Your task to perform on an android device: Open Yahoo.com Image 0: 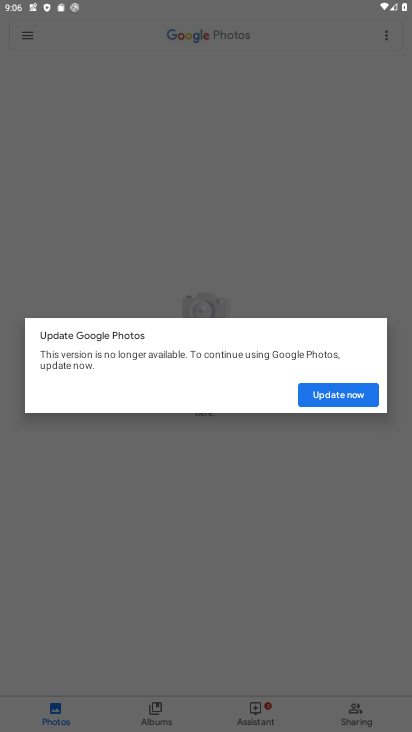
Step 0: press home button
Your task to perform on an android device: Open Yahoo.com Image 1: 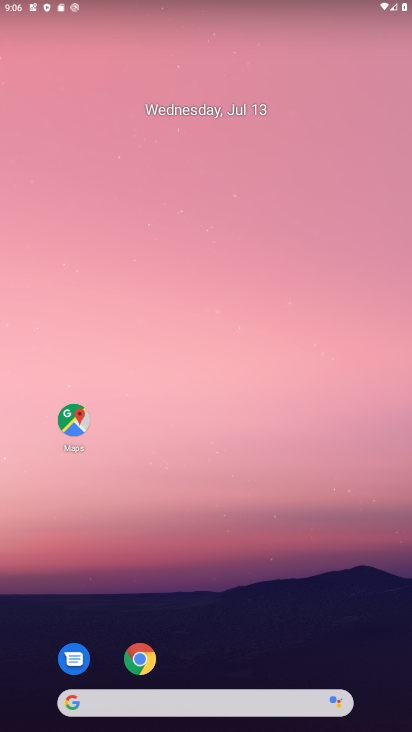
Step 1: click (139, 668)
Your task to perform on an android device: Open Yahoo.com Image 2: 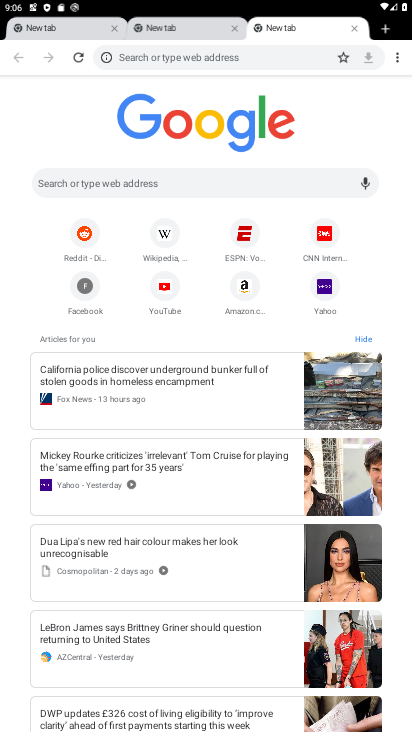
Step 2: click (321, 298)
Your task to perform on an android device: Open Yahoo.com Image 3: 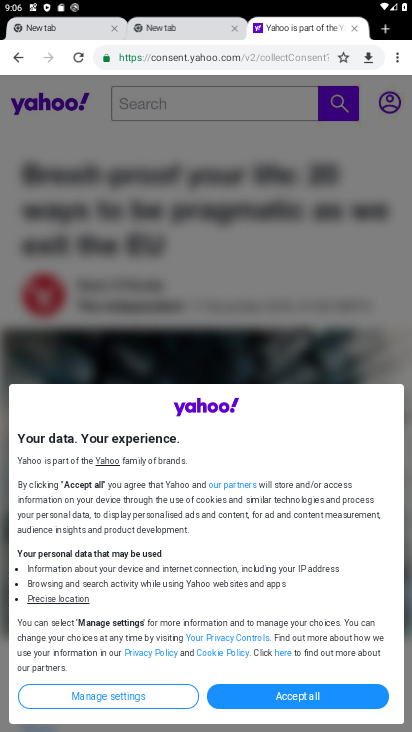
Step 3: task complete